Your task to perform on an android device: toggle javascript in the chrome app Image 0: 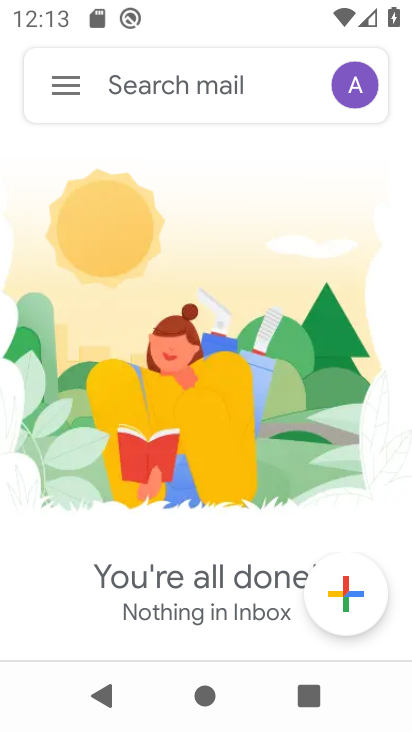
Step 0: press home button
Your task to perform on an android device: toggle javascript in the chrome app Image 1: 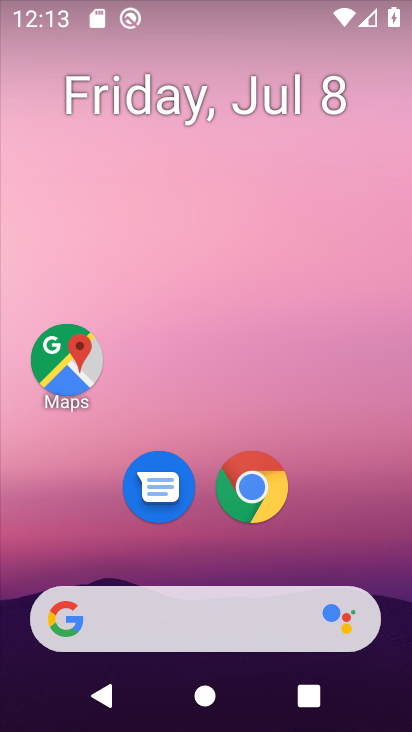
Step 1: drag from (353, 540) to (342, 185)
Your task to perform on an android device: toggle javascript in the chrome app Image 2: 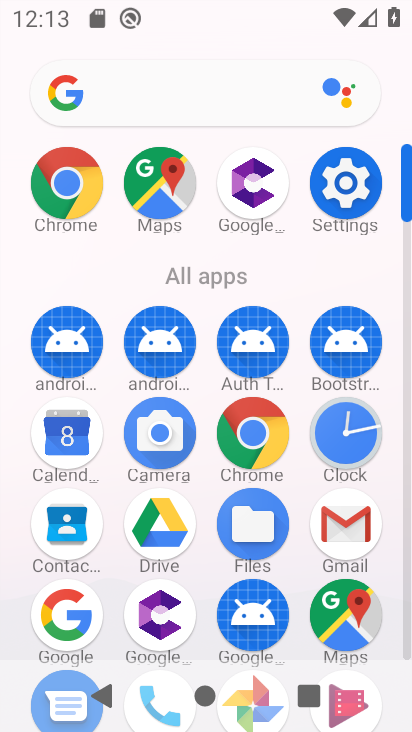
Step 2: click (255, 429)
Your task to perform on an android device: toggle javascript in the chrome app Image 3: 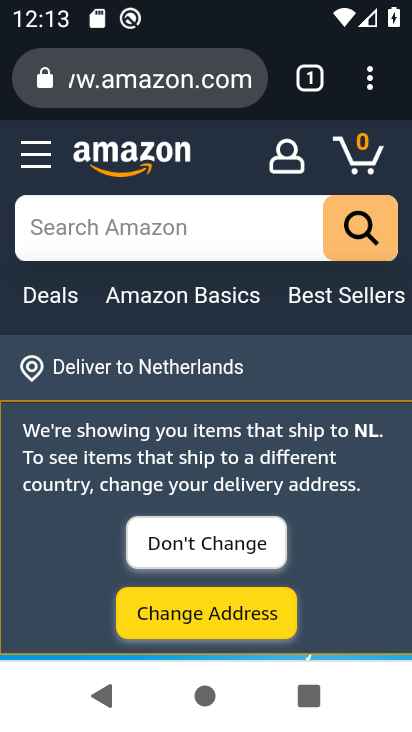
Step 3: click (370, 90)
Your task to perform on an android device: toggle javascript in the chrome app Image 4: 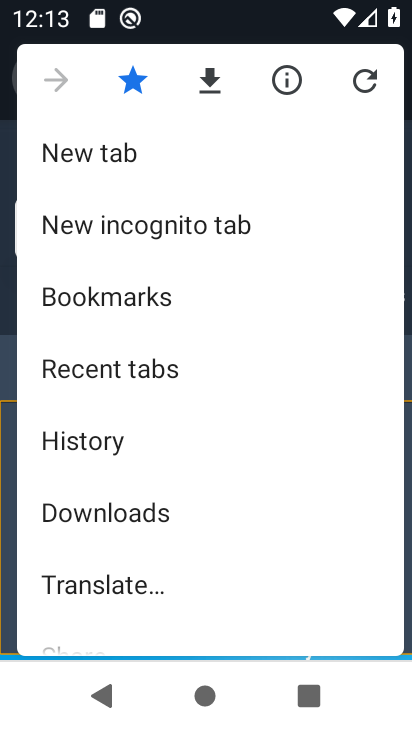
Step 4: drag from (305, 432) to (315, 338)
Your task to perform on an android device: toggle javascript in the chrome app Image 5: 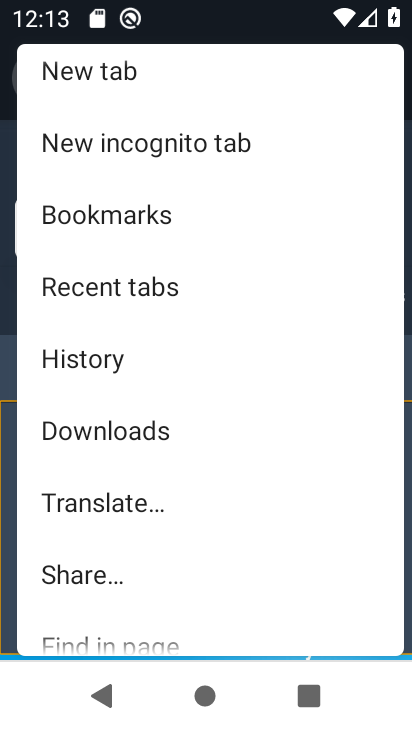
Step 5: drag from (321, 470) to (311, 351)
Your task to perform on an android device: toggle javascript in the chrome app Image 6: 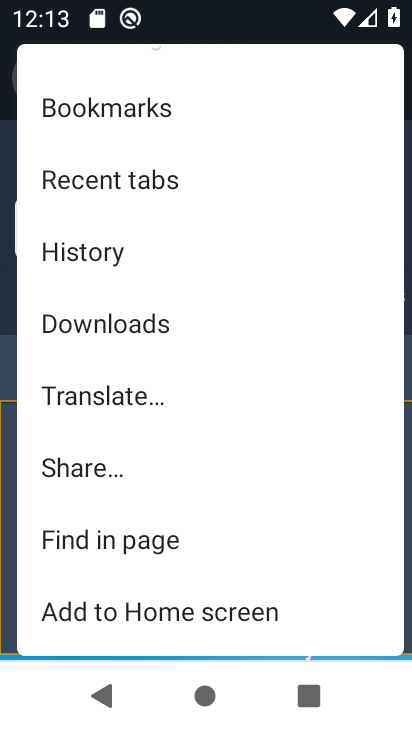
Step 6: drag from (304, 499) to (297, 370)
Your task to perform on an android device: toggle javascript in the chrome app Image 7: 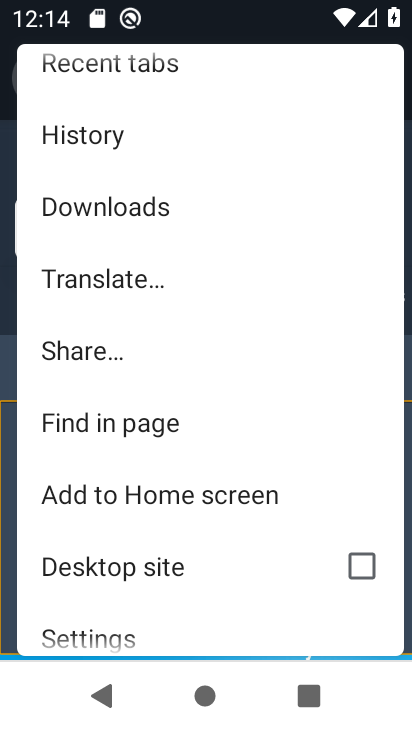
Step 7: drag from (304, 402) to (324, 245)
Your task to perform on an android device: toggle javascript in the chrome app Image 8: 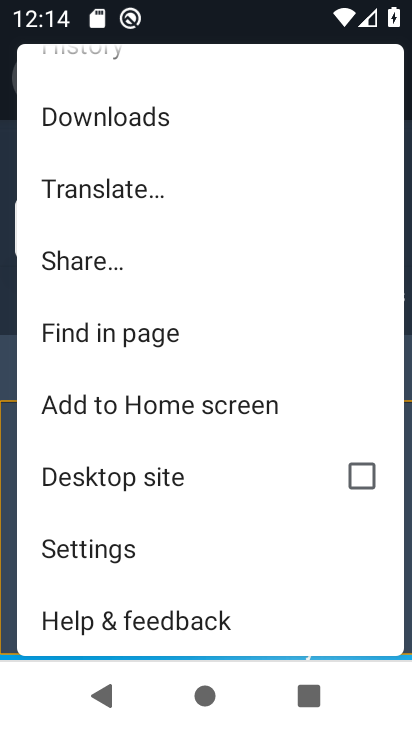
Step 8: drag from (329, 364) to (329, 260)
Your task to perform on an android device: toggle javascript in the chrome app Image 9: 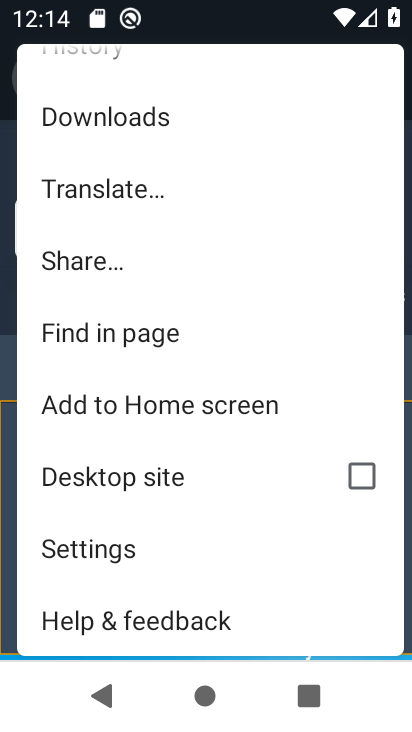
Step 9: click (149, 559)
Your task to perform on an android device: toggle javascript in the chrome app Image 10: 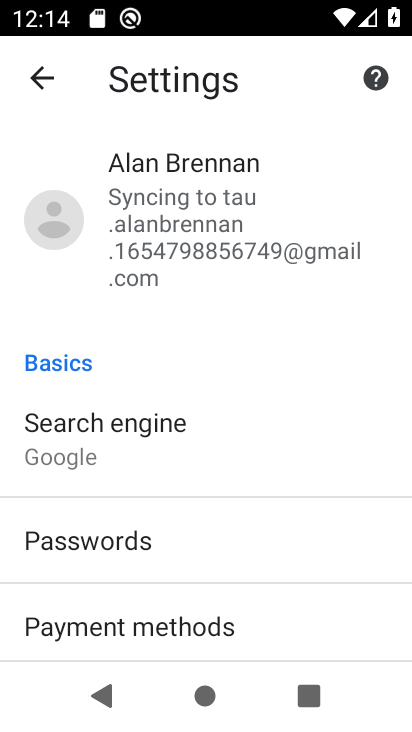
Step 10: drag from (280, 502) to (308, 305)
Your task to perform on an android device: toggle javascript in the chrome app Image 11: 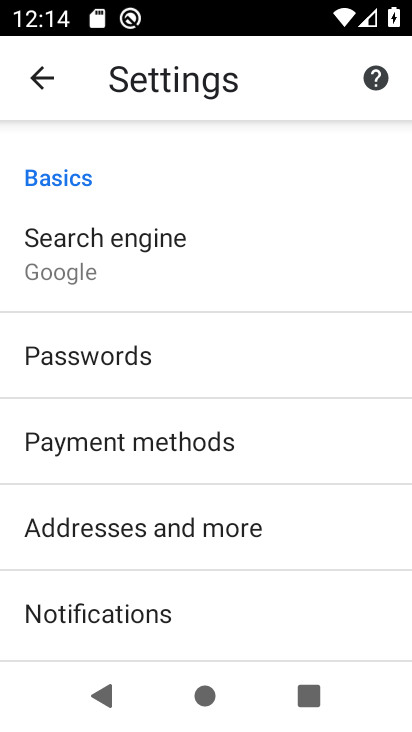
Step 11: drag from (306, 477) to (337, 301)
Your task to perform on an android device: toggle javascript in the chrome app Image 12: 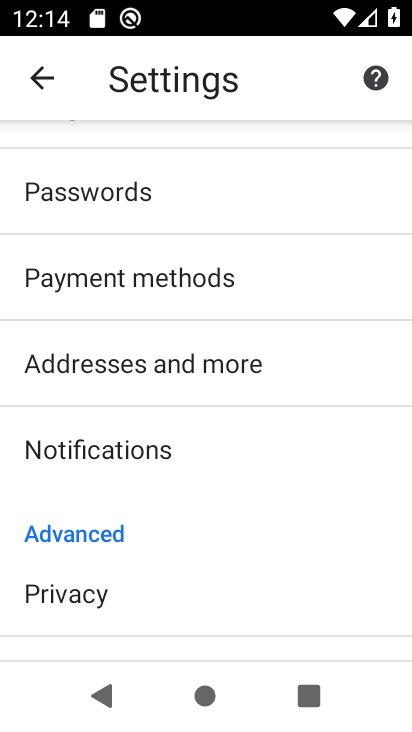
Step 12: drag from (333, 495) to (331, 358)
Your task to perform on an android device: toggle javascript in the chrome app Image 13: 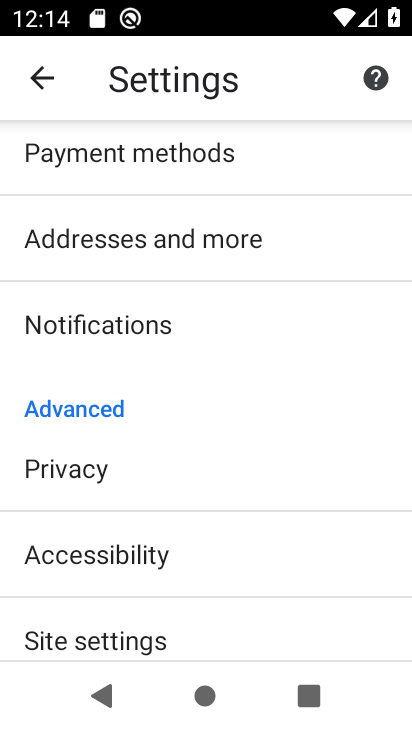
Step 13: drag from (311, 564) to (310, 429)
Your task to perform on an android device: toggle javascript in the chrome app Image 14: 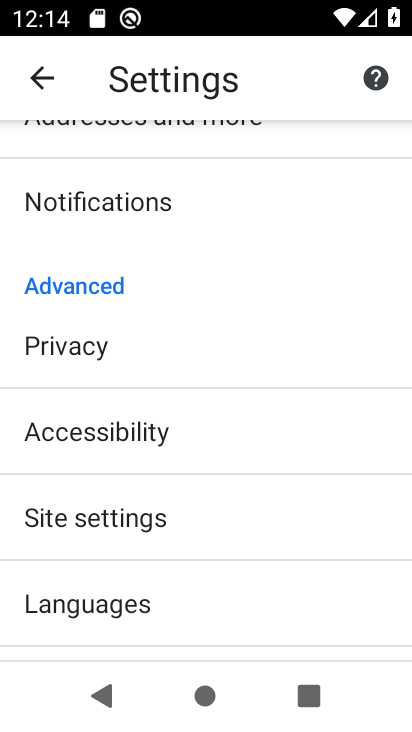
Step 14: click (294, 526)
Your task to perform on an android device: toggle javascript in the chrome app Image 15: 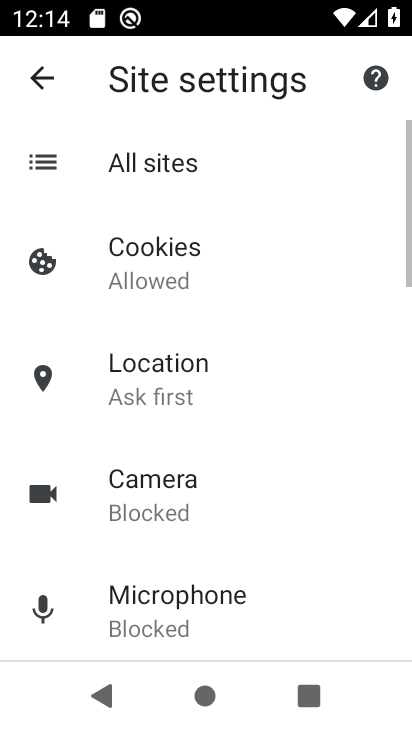
Step 15: drag from (294, 526) to (295, 381)
Your task to perform on an android device: toggle javascript in the chrome app Image 16: 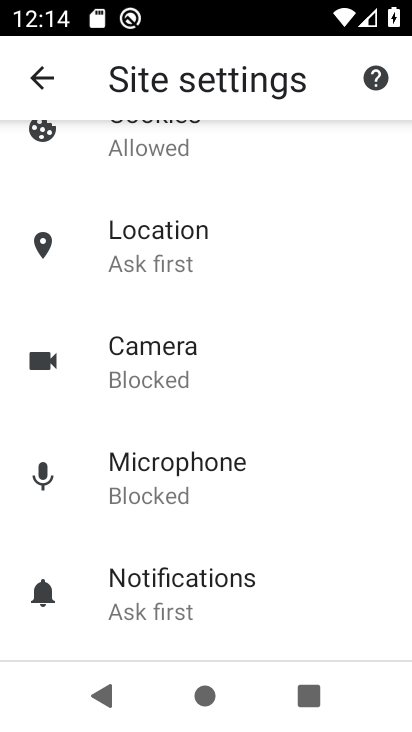
Step 16: drag from (300, 550) to (298, 374)
Your task to perform on an android device: toggle javascript in the chrome app Image 17: 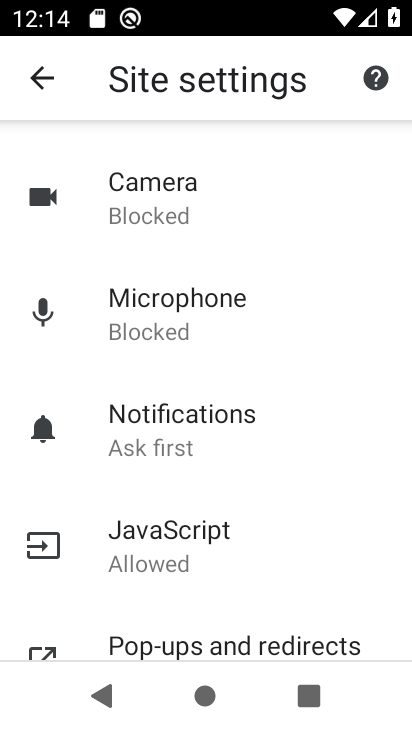
Step 17: click (281, 552)
Your task to perform on an android device: toggle javascript in the chrome app Image 18: 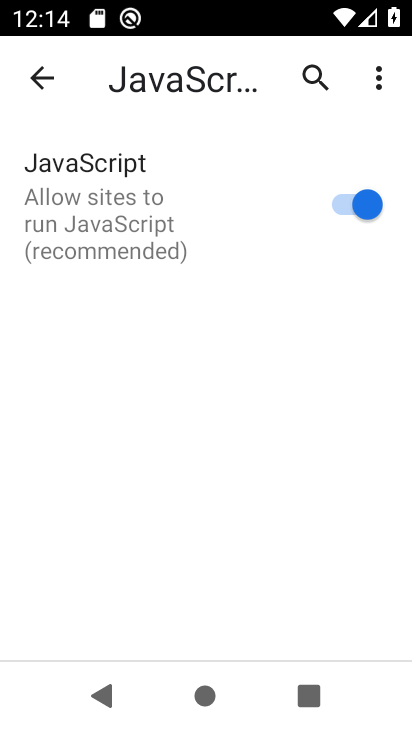
Step 18: click (365, 205)
Your task to perform on an android device: toggle javascript in the chrome app Image 19: 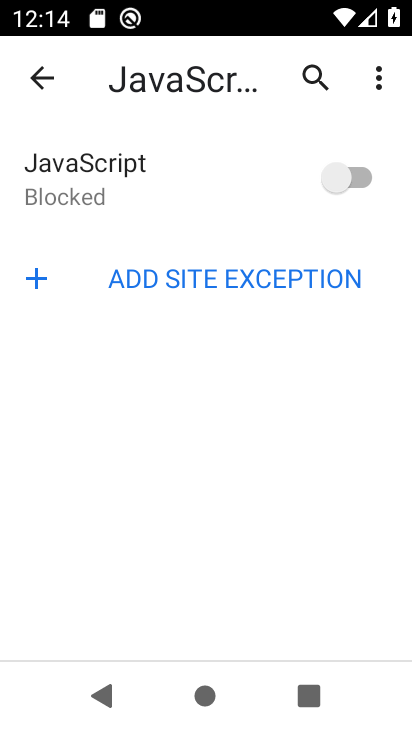
Step 19: task complete